Your task to perform on an android device: delete the emails in spam in the gmail app Image 0: 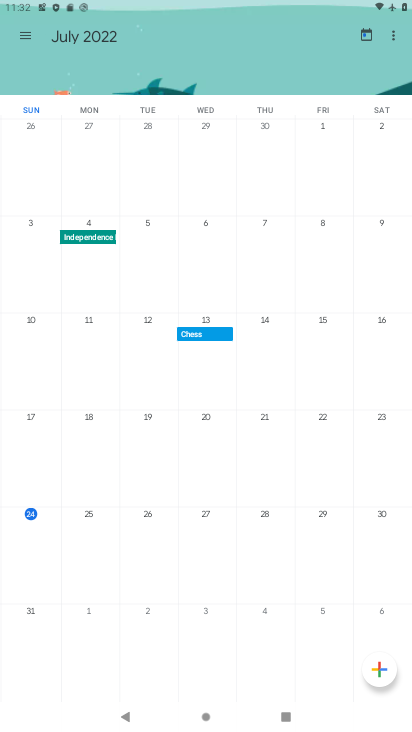
Step 0: press home button
Your task to perform on an android device: delete the emails in spam in the gmail app Image 1: 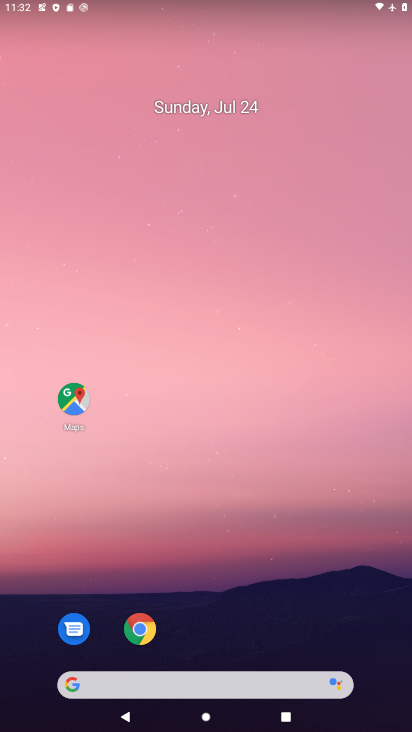
Step 1: drag from (189, 643) to (144, 44)
Your task to perform on an android device: delete the emails in spam in the gmail app Image 2: 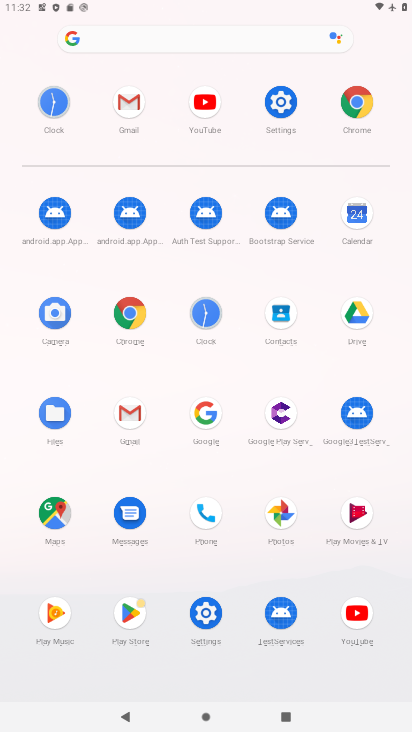
Step 2: click (142, 129)
Your task to perform on an android device: delete the emails in spam in the gmail app Image 3: 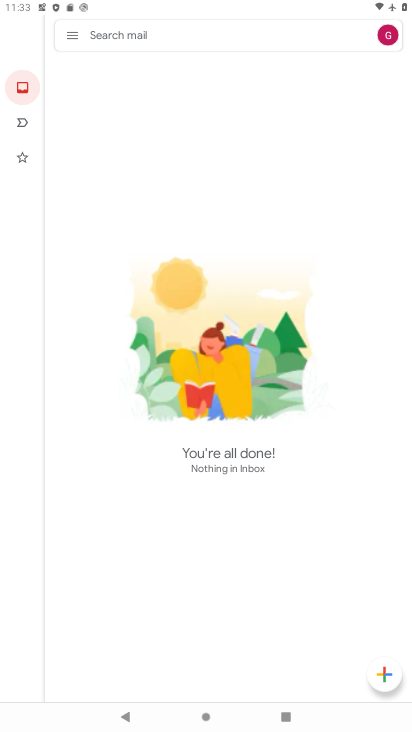
Step 3: task complete